Your task to perform on an android device: open app "Spotify: Music and Podcasts" (install if not already installed) Image 0: 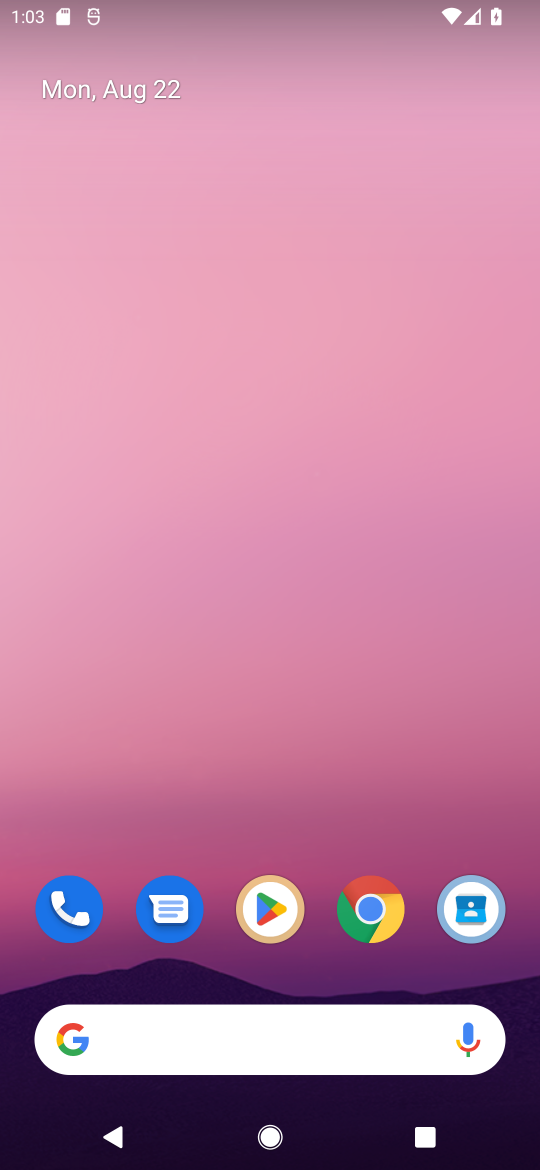
Step 0: click (265, 898)
Your task to perform on an android device: open app "Spotify: Music and Podcasts" (install if not already installed) Image 1: 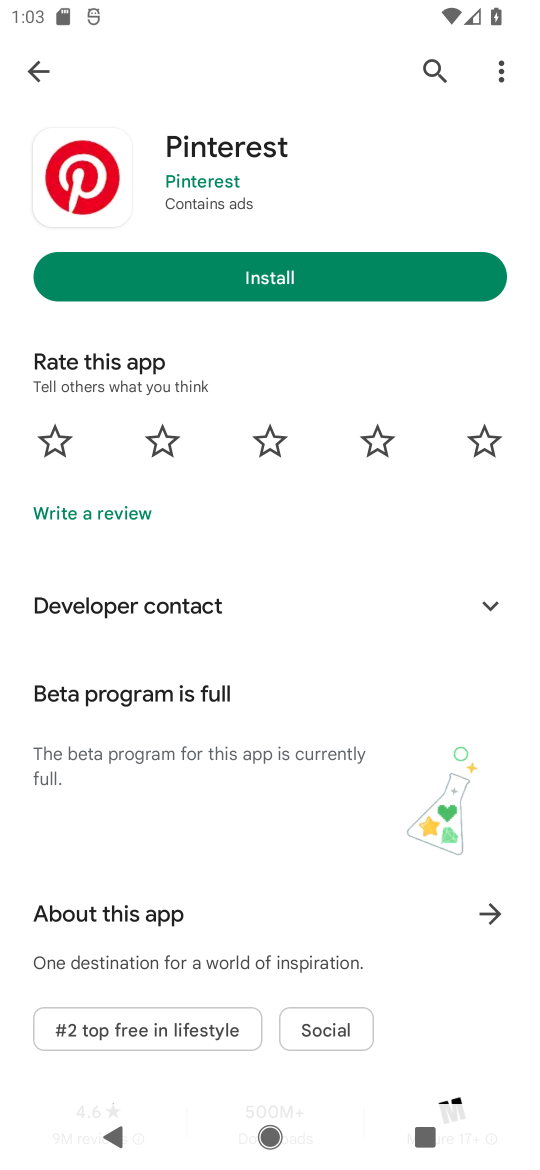
Step 1: click (442, 59)
Your task to perform on an android device: open app "Spotify: Music and Podcasts" (install if not already installed) Image 2: 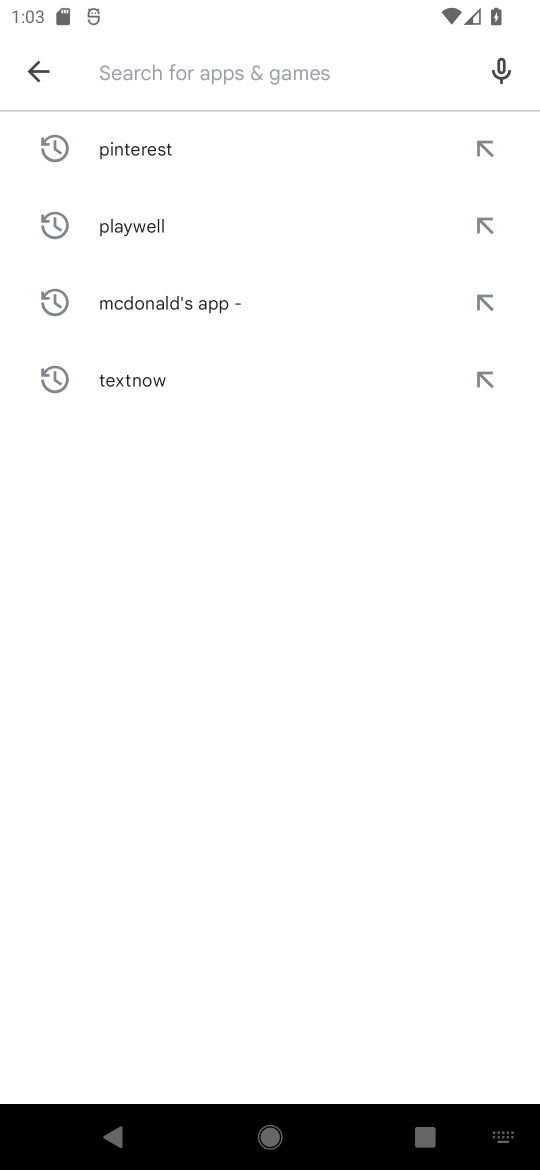
Step 2: click (166, 60)
Your task to perform on an android device: open app "Spotify: Music and Podcasts" (install if not already installed) Image 3: 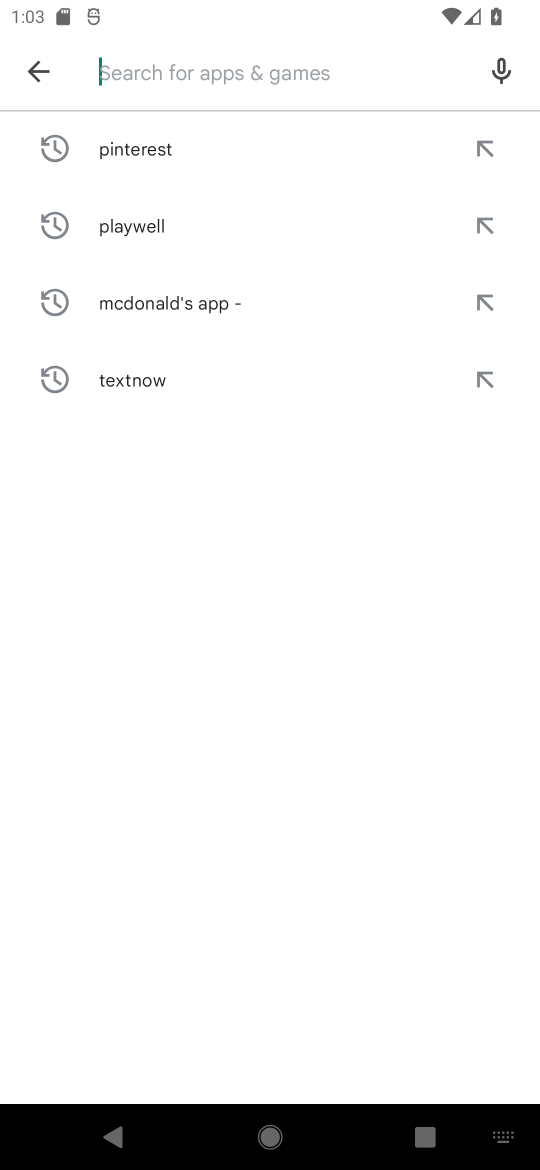
Step 3: type "spotify"
Your task to perform on an android device: open app "Spotify: Music and Podcasts" (install if not already installed) Image 4: 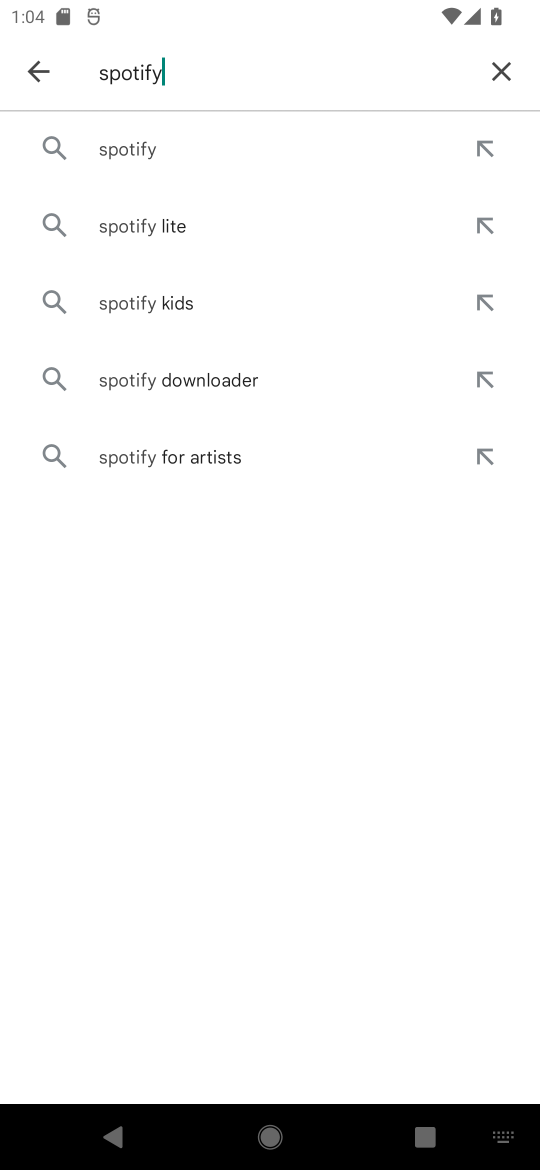
Step 4: click (143, 132)
Your task to perform on an android device: open app "Spotify: Music and Podcasts" (install if not already installed) Image 5: 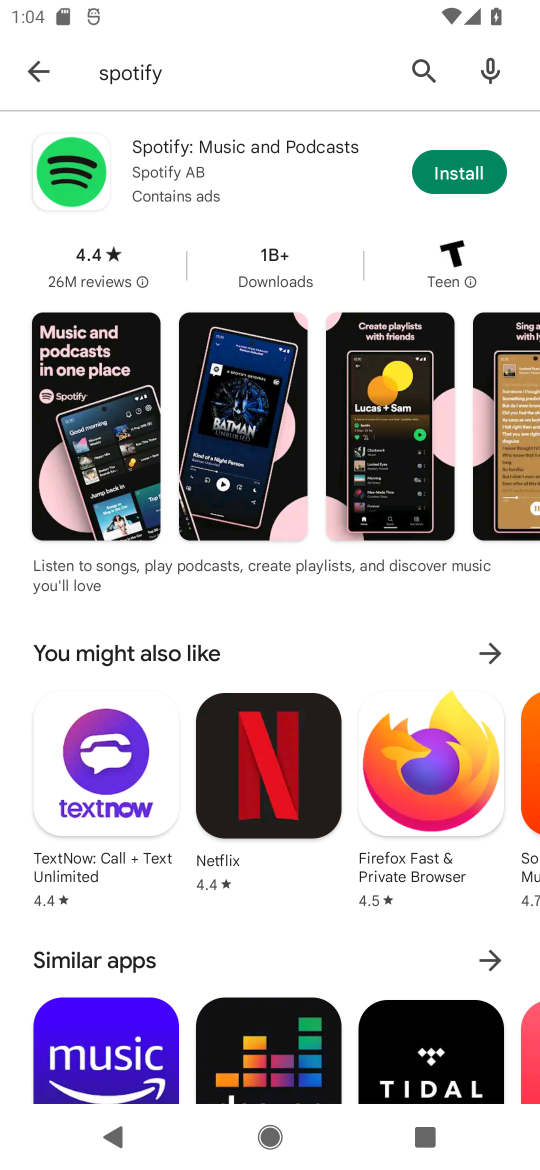
Step 5: click (475, 171)
Your task to perform on an android device: open app "Spotify: Music and Podcasts" (install if not already installed) Image 6: 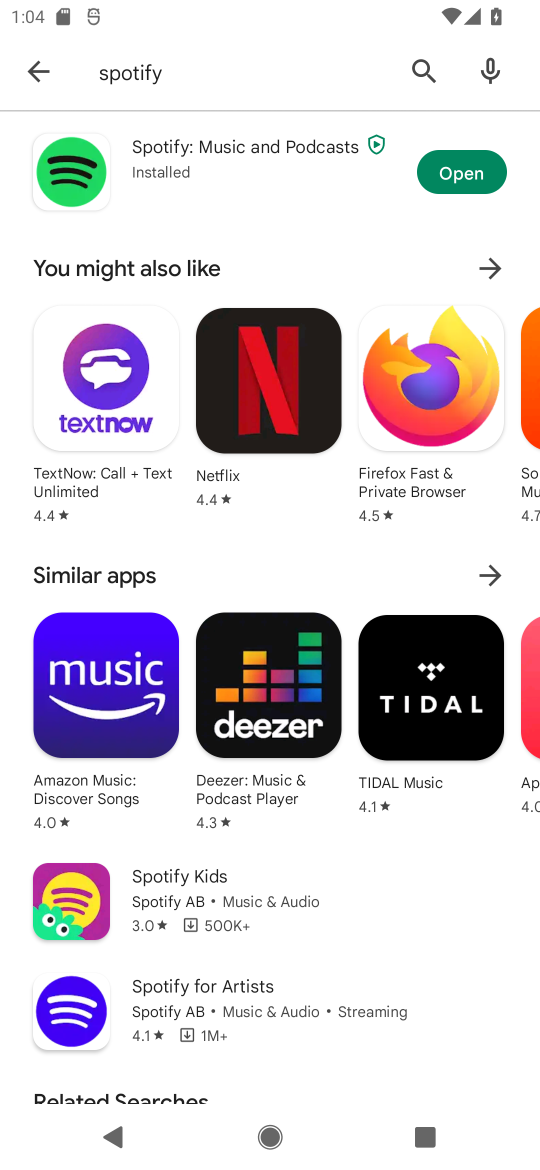
Step 6: click (486, 163)
Your task to perform on an android device: open app "Spotify: Music and Podcasts" (install if not already installed) Image 7: 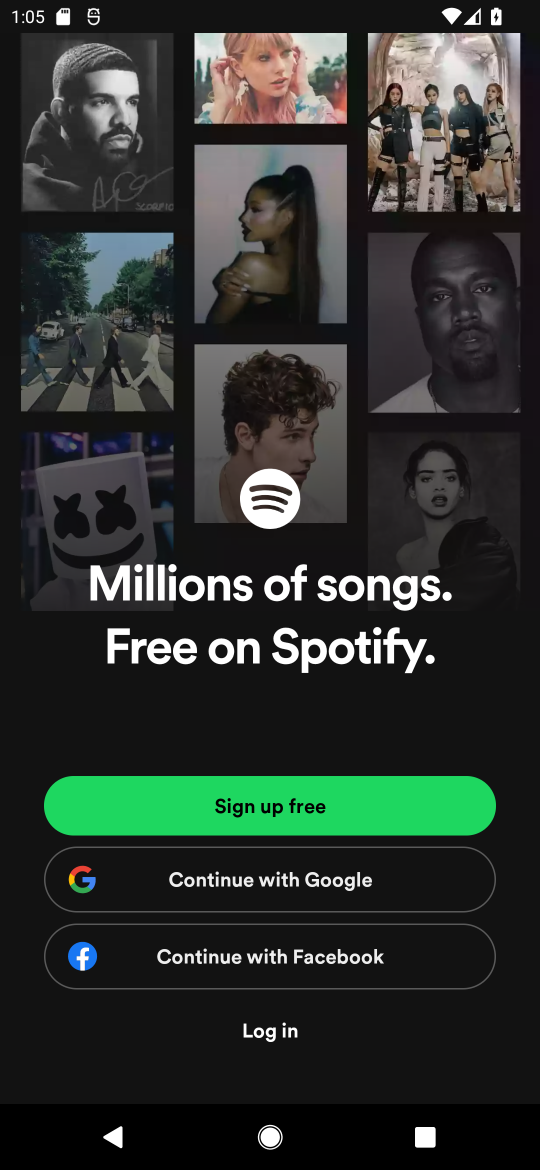
Step 7: task complete